Your task to perform on an android device: change the clock display to analog Image 0: 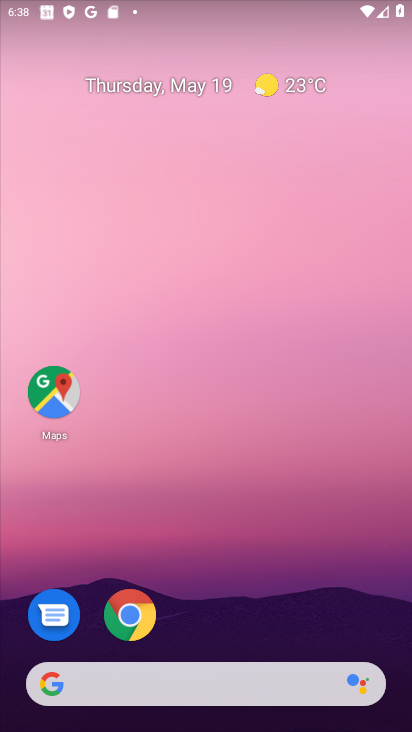
Step 0: drag from (355, 628) to (131, 5)
Your task to perform on an android device: change the clock display to analog Image 1: 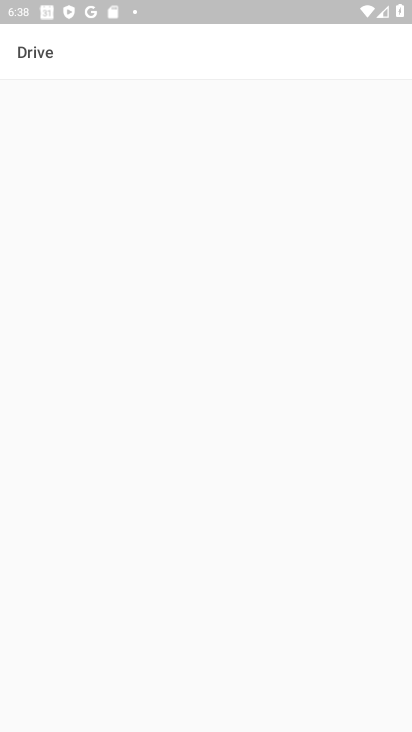
Step 1: press home button
Your task to perform on an android device: change the clock display to analog Image 2: 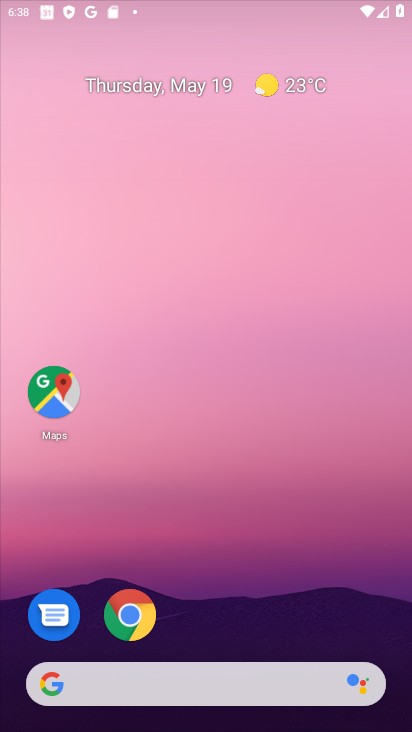
Step 2: drag from (300, 614) to (235, 45)
Your task to perform on an android device: change the clock display to analog Image 3: 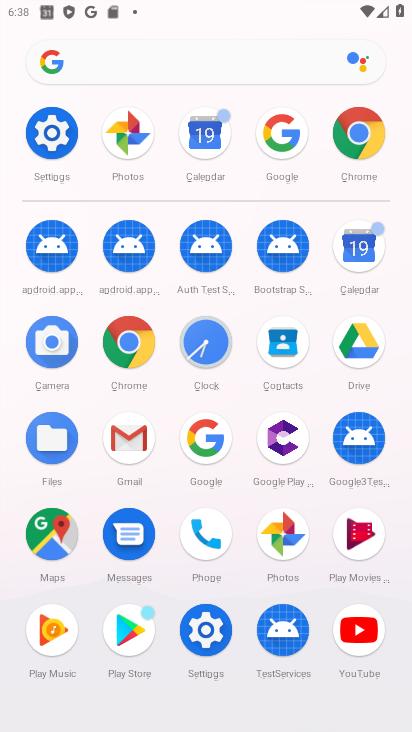
Step 3: click (207, 332)
Your task to perform on an android device: change the clock display to analog Image 4: 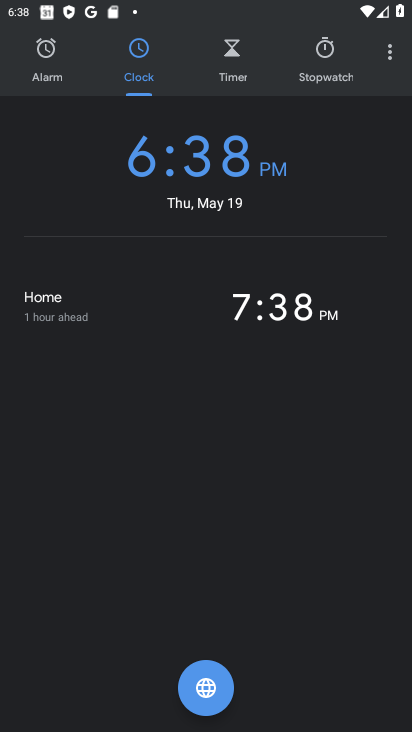
Step 4: click (382, 45)
Your task to perform on an android device: change the clock display to analog Image 5: 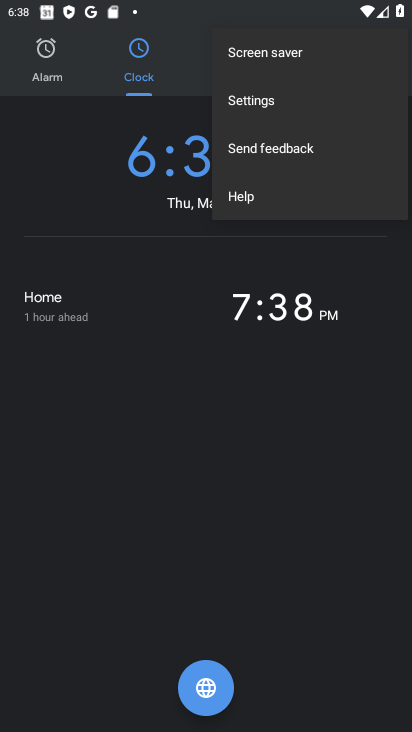
Step 5: click (273, 101)
Your task to perform on an android device: change the clock display to analog Image 6: 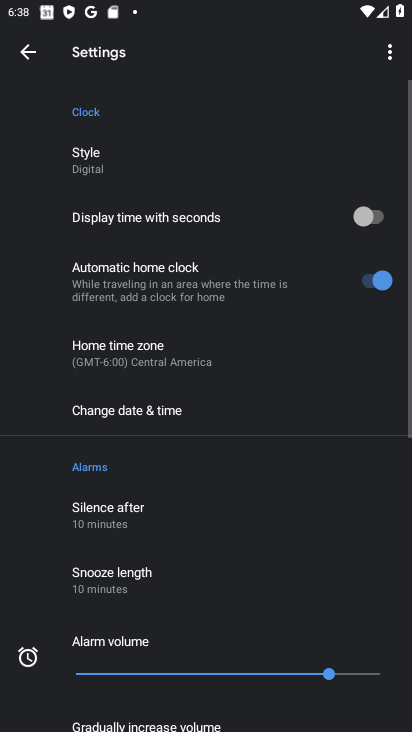
Step 6: click (115, 163)
Your task to perform on an android device: change the clock display to analog Image 7: 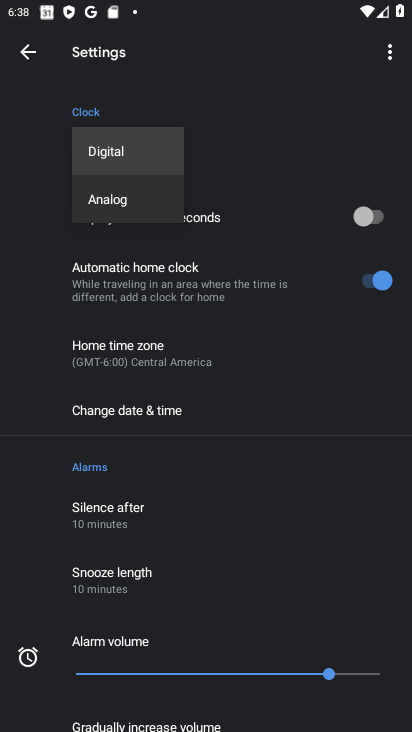
Step 7: click (116, 207)
Your task to perform on an android device: change the clock display to analog Image 8: 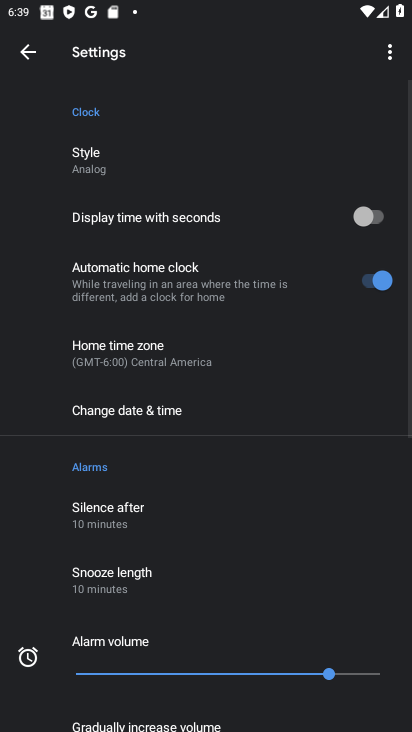
Step 8: task complete